Your task to perform on an android device: turn on data saver in the chrome app Image 0: 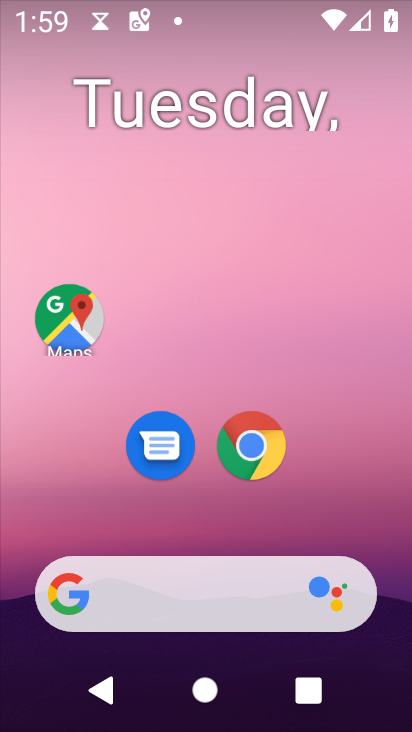
Step 0: drag from (340, 580) to (365, 17)
Your task to perform on an android device: turn on data saver in the chrome app Image 1: 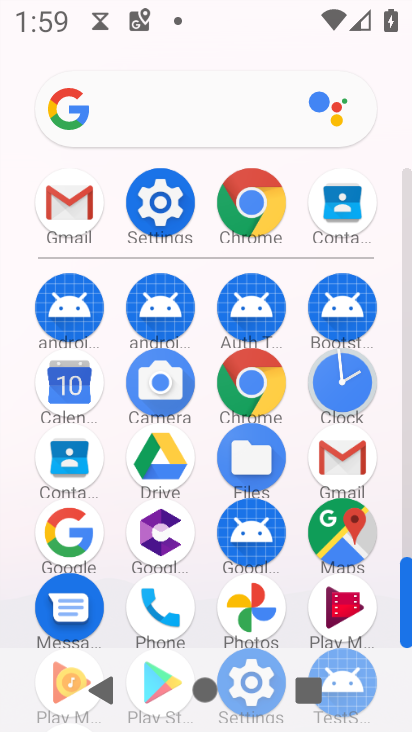
Step 1: click (268, 386)
Your task to perform on an android device: turn on data saver in the chrome app Image 2: 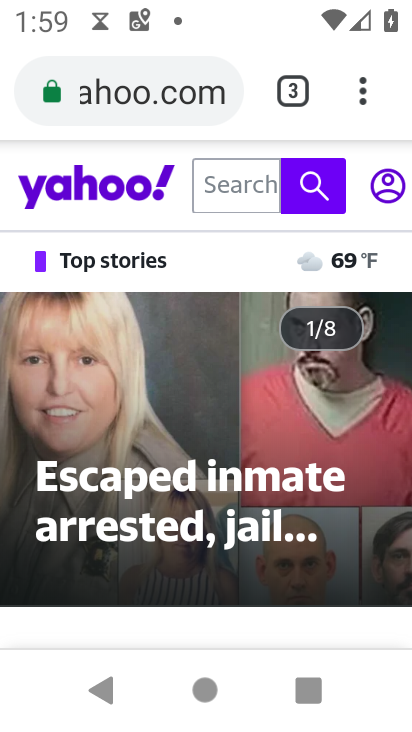
Step 2: drag from (371, 90) to (268, 496)
Your task to perform on an android device: turn on data saver in the chrome app Image 3: 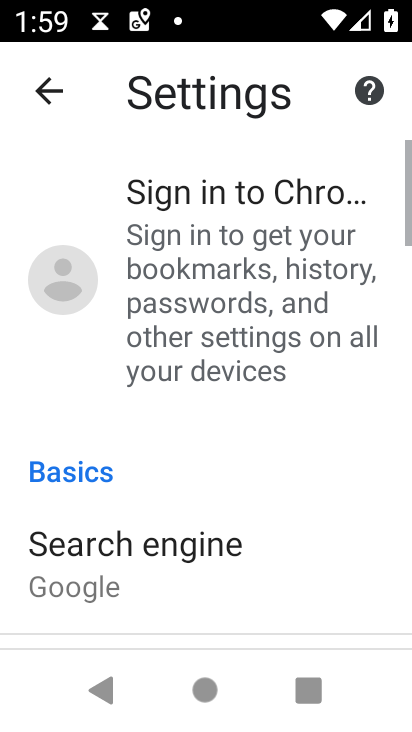
Step 3: drag from (278, 620) to (299, 174)
Your task to perform on an android device: turn on data saver in the chrome app Image 4: 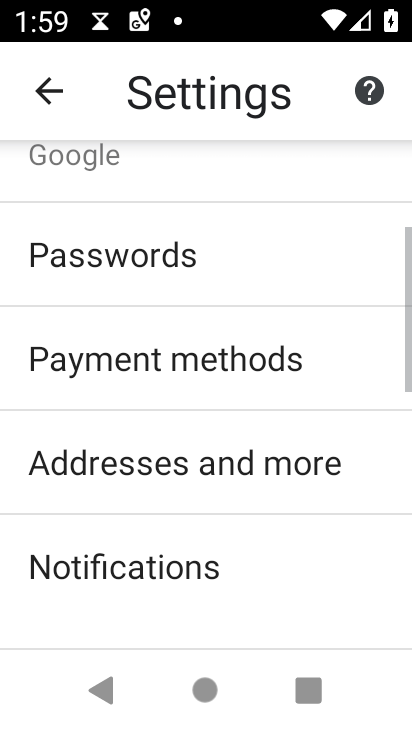
Step 4: drag from (260, 593) to (227, 153)
Your task to perform on an android device: turn on data saver in the chrome app Image 5: 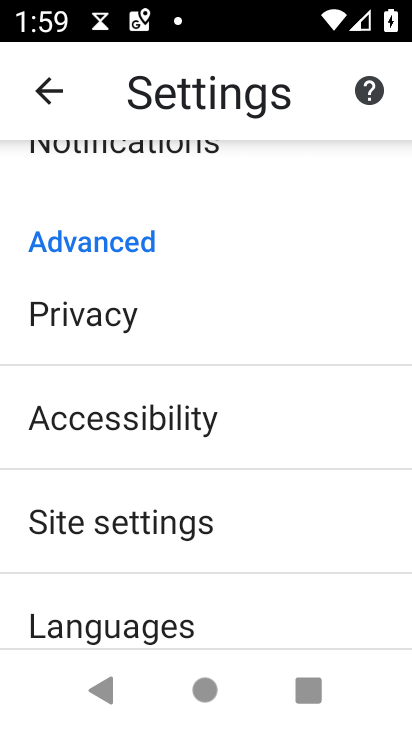
Step 5: drag from (222, 588) to (286, 283)
Your task to perform on an android device: turn on data saver in the chrome app Image 6: 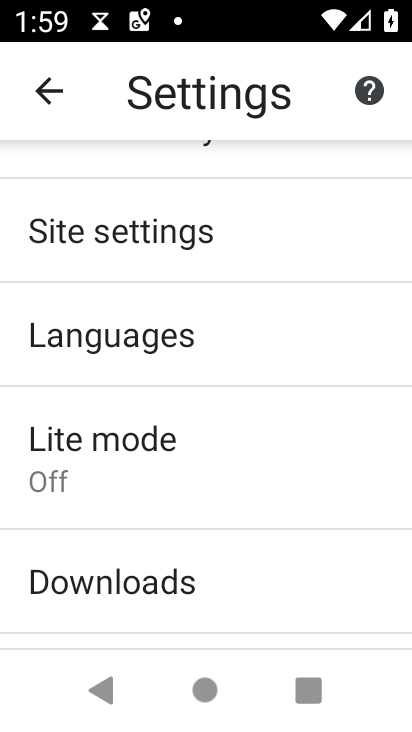
Step 6: drag from (183, 248) to (201, 301)
Your task to perform on an android device: turn on data saver in the chrome app Image 7: 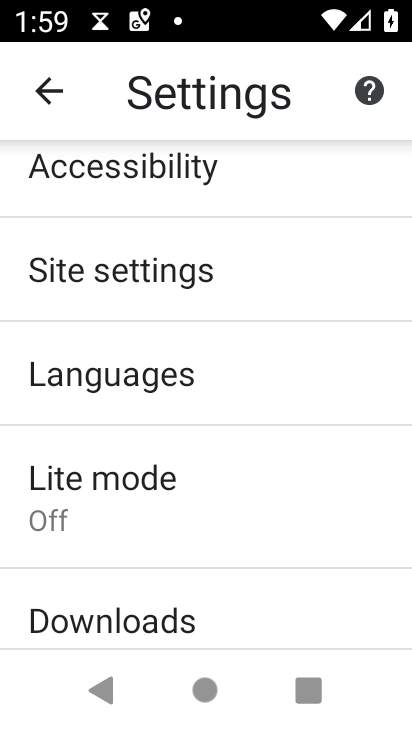
Step 7: click (211, 495)
Your task to perform on an android device: turn on data saver in the chrome app Image 8: 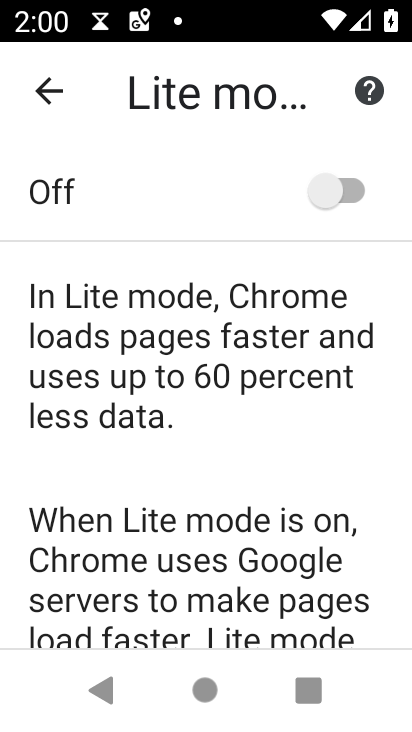
Step 8: click (361, 185)
Your task to perform on an android device: turn on data saver in the chrome app Image 9: 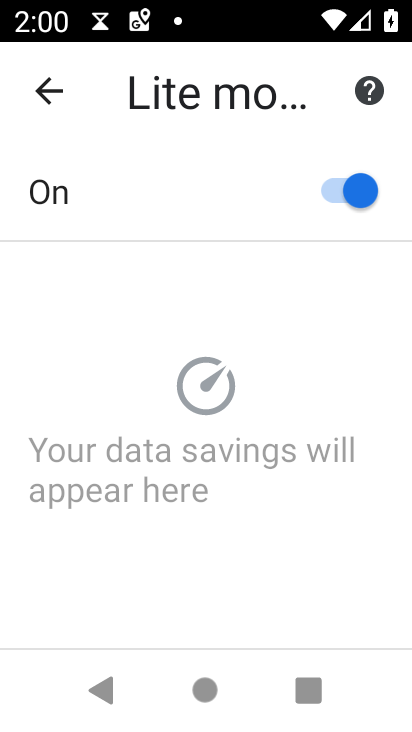
Step 9: task complete